Your task to perform on an android device: change notification settings in the gmail app Image 0: 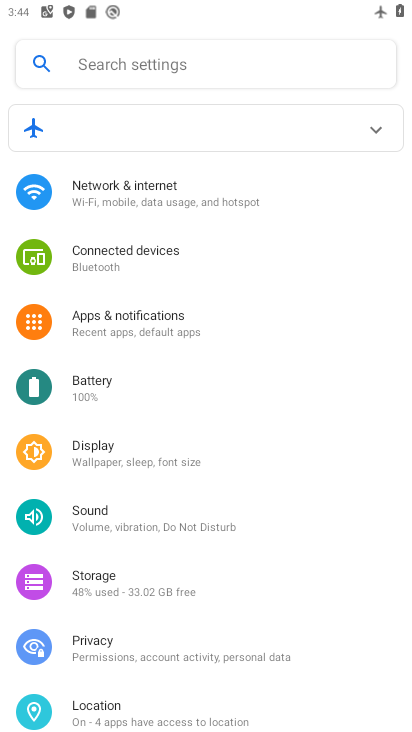
Step 0: press home button
Your task to perform on an android device: change notification settings in the gmail app Image 1: 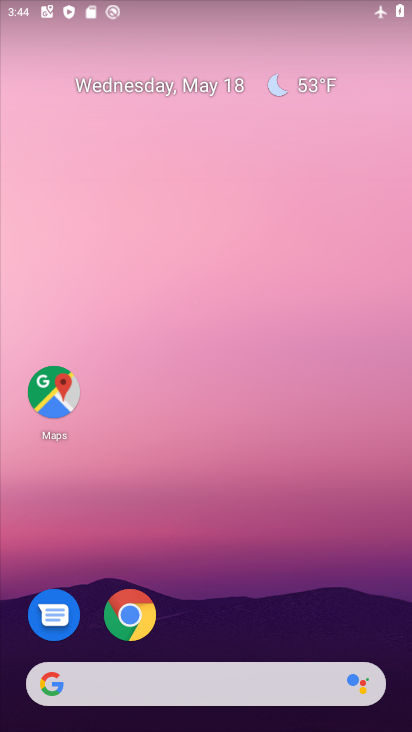
Step 1: drag from (247, 590) to (306, 110)
Your task to perform on an android device: change notification settings in the gmail app Image 2: 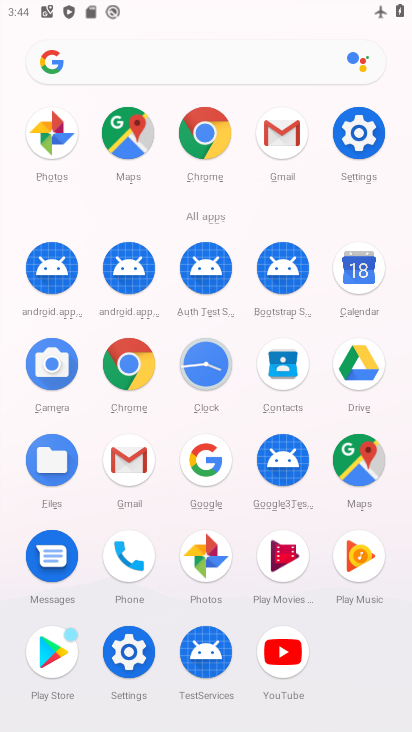
Step 2: click (270, 134)
Your task to perform on an android device: change notification settings in the gmail app Image 3: 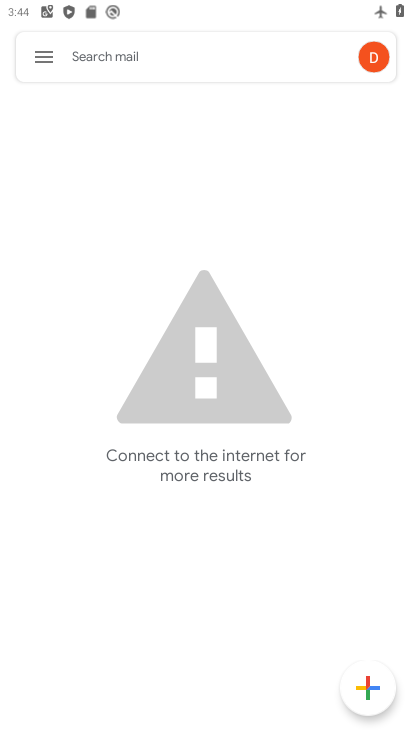
Step 3: click (42, 42)
Your task to perform on an android device: change notification settings in the gmail app Image 4: 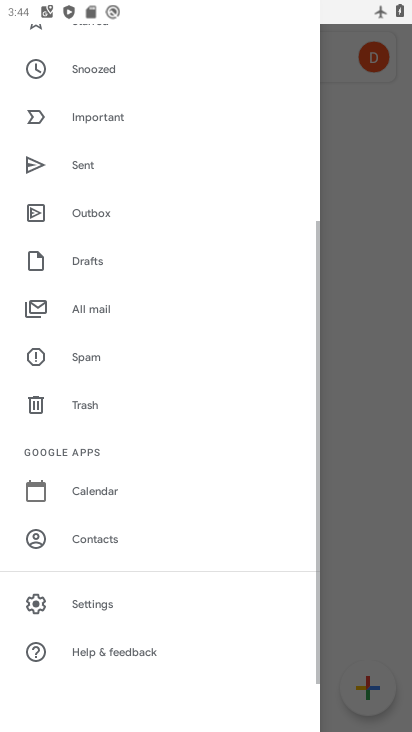
Step 4: click (99, 593)
Your task to perform on an android device: change notification settings in the gmail app Image 5: 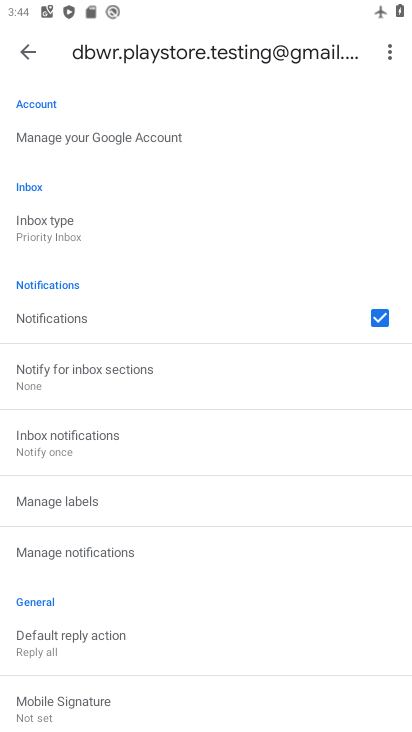
Step 5: click (121, 551)
Your task to perform on an android device: change notification settings in the gmail app Image 6: 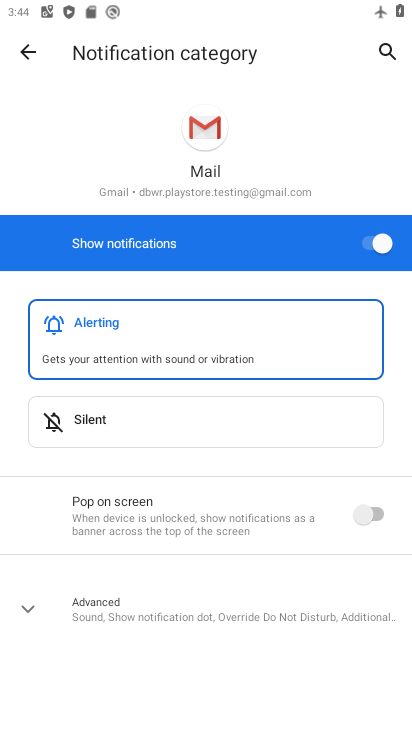
Step 6: click (374, 235)
Your task to perform on an android device: change notification settings in the gmail app Image 7: 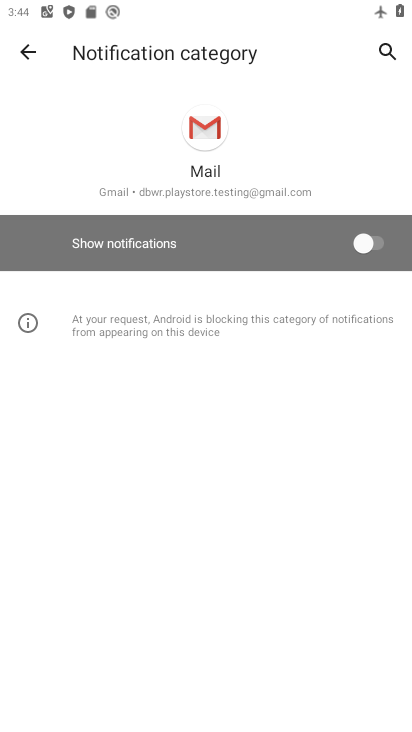
Step 7: task complete